Your task to perform on an android device: open sync settings in chrome Image 0: 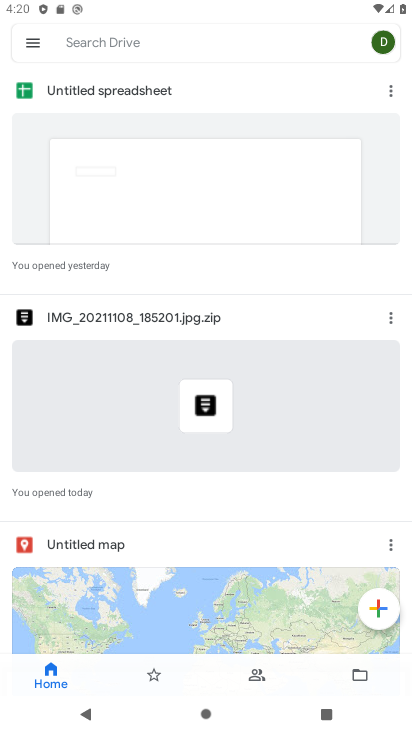
Step 0: press back button
Your task to perform on an android device: open sync settings in chrome Image 1: 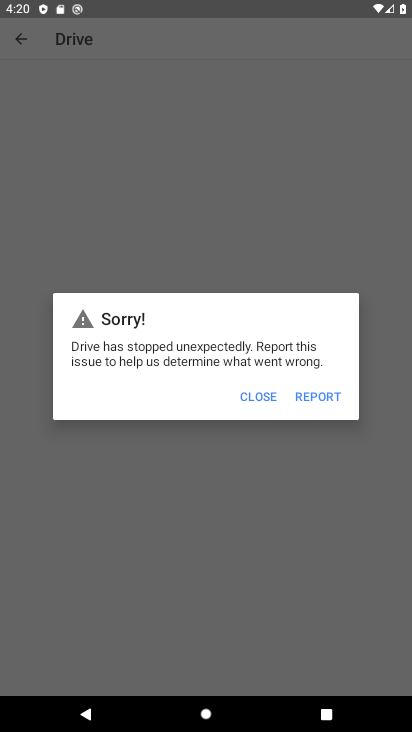
Step 1: press home button
Your task to perform on an android device: open sync settings in chrome Image 2: 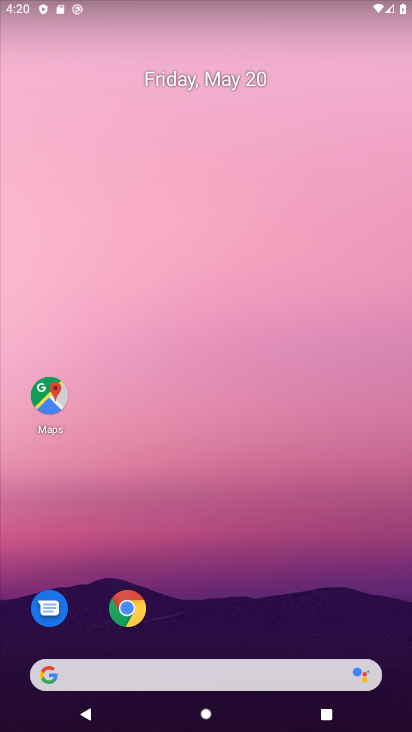
Step 2: drag from (188, 636) to (397, 55)
Your task to perform on an android device: open sync settings in chrome Image 3: 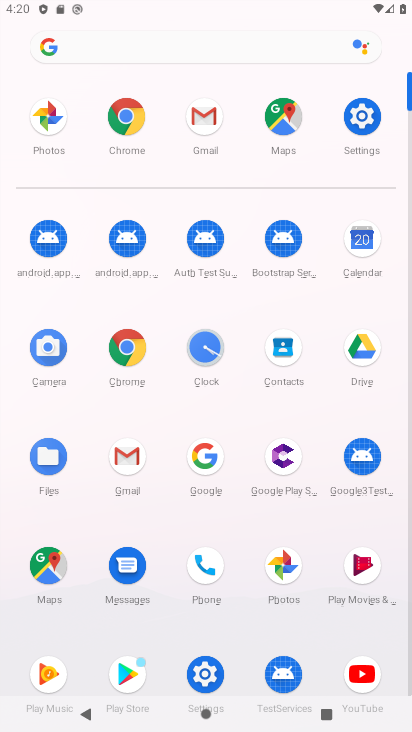
Step 3: click (119, 338)
Your task to perform on an android device: open sync settings in chrome Image 4: 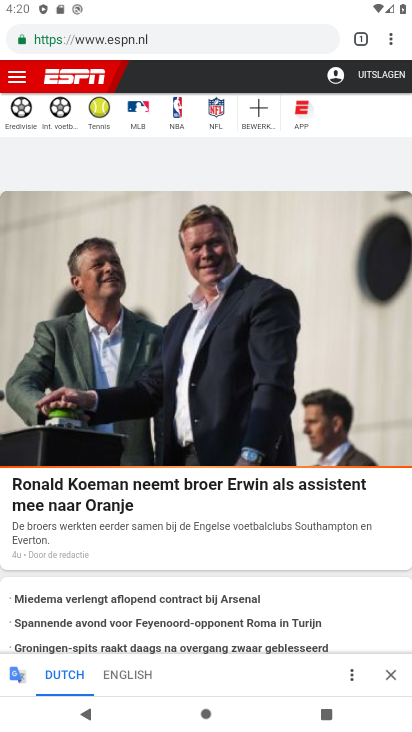
Step 4: drag from (388, 37) to (245, 467)
Your task to perform on an android device: open sync settings in chrome Image 5: 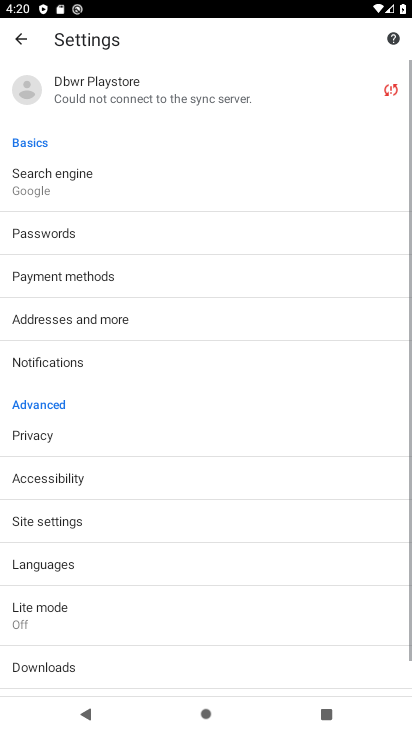
Step 5: click (40, 79)
Your task to perform on an android device: open sync settings in chrome Image 6: 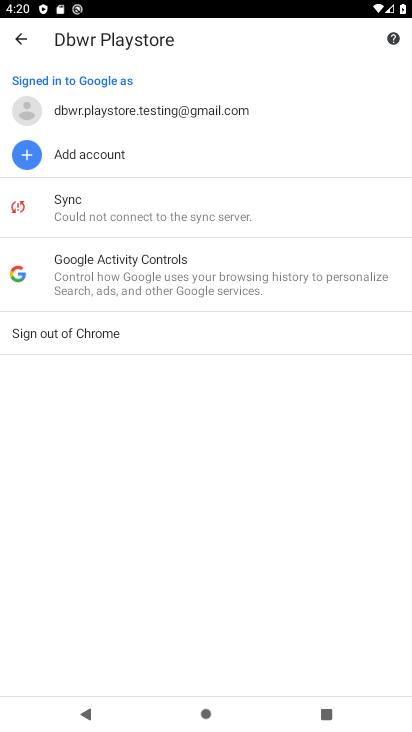
Step 6: click (102, 212)
Your task to perform on an android device: open sync settings in chrome Image 7: 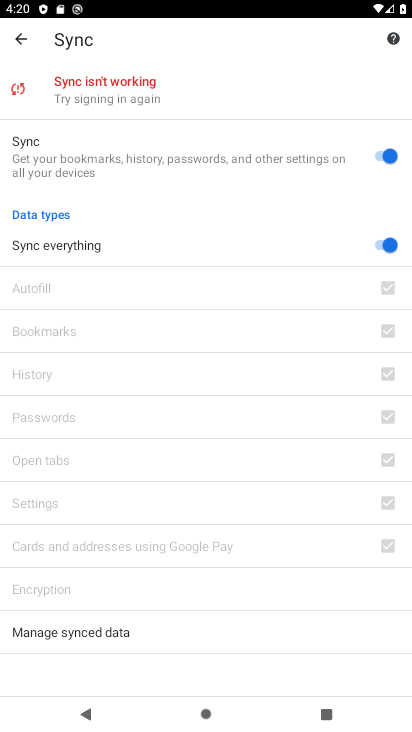
Step 7: task complete